Your task to perform on an android device: What's on my calendar tomorrow? Image 0: 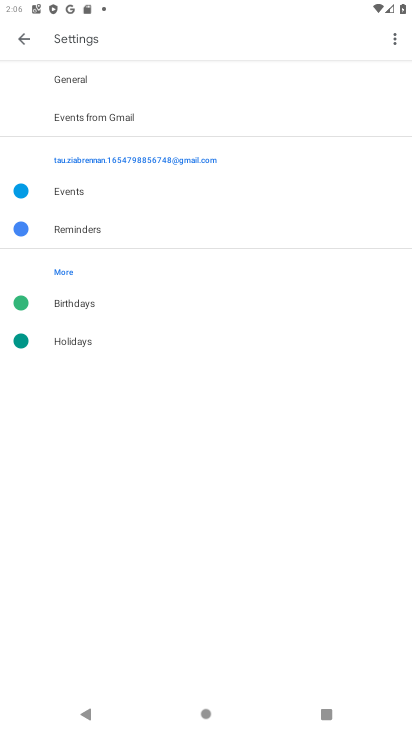
Step 0: press home button
Your task to perform on an android device: What's on my calendar tomorrow? Image 1: 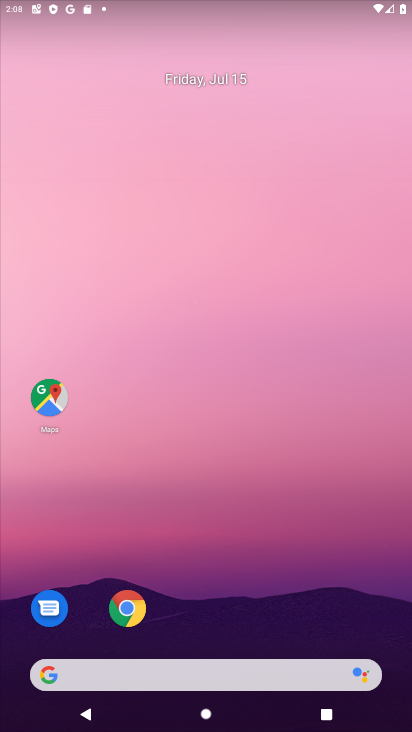
Step 1: drag from (284, 713) to (296, 56)
Your task to perform on an android device: What's on my calendar tomorrow? Image 2: 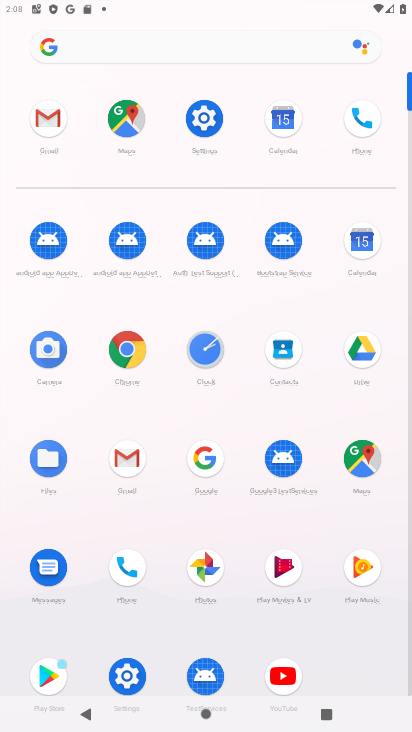
Step 2: click (339, 227)
Your task to perform on an android device: What's on my calendar tomorrow? Image 3: 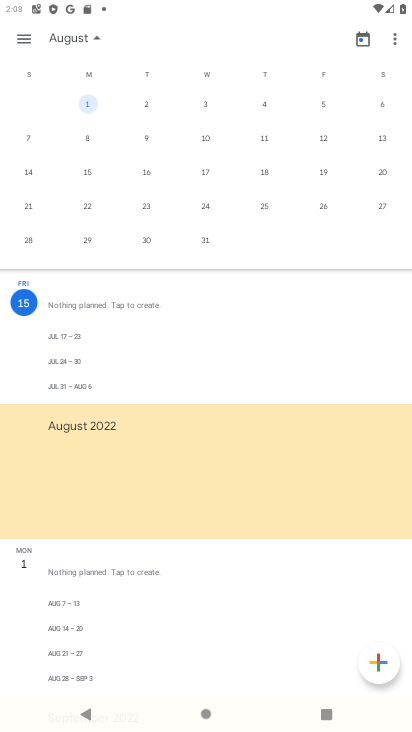
Step 3: drag from (59, 134) to (392, 103)
Your task to perform on an android device: What's on my calendar tomorrow? Image 4: 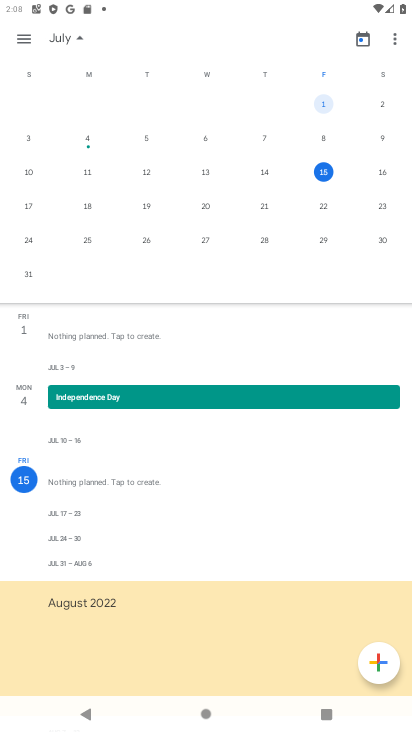
Step 4: click (382, 172)
Your task to perform on an android device: What's on my calendar tomorrow? Image 5: 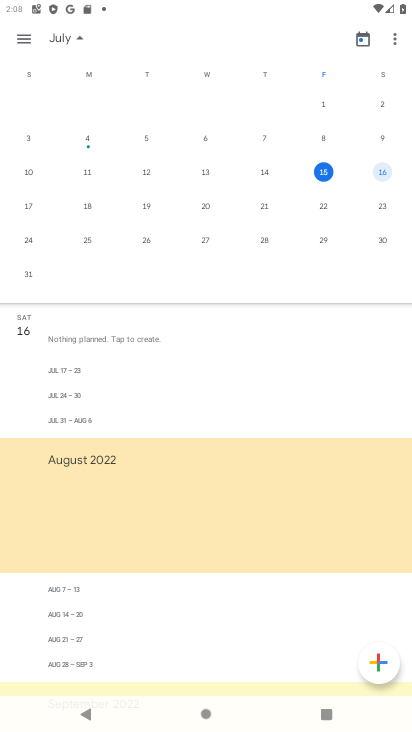
Step 5: task complete